Your task to perform on an android device: Open Chrome and go to the settings page Image 0: 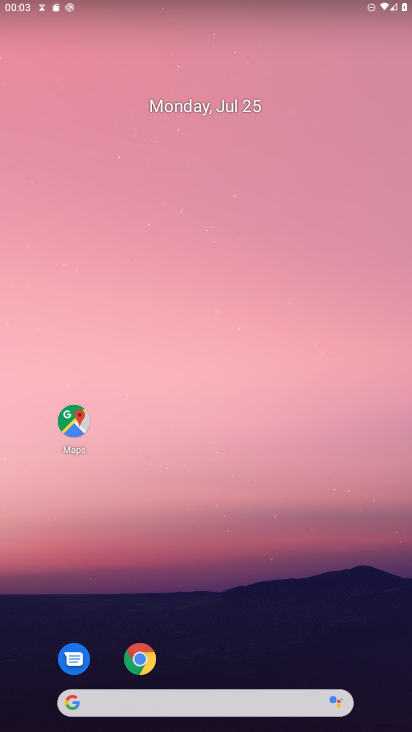
Step 0: drag from (156, 593) to (163, 22)
Your task to perform on an android device: Open Chrome and go to the settings page Image 1: 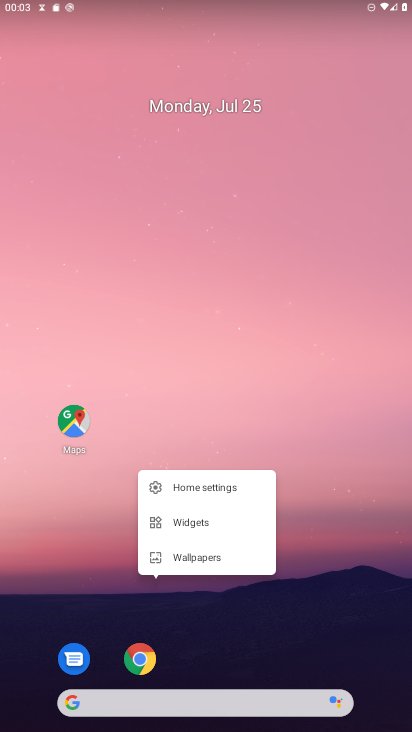
Step 1: click (303, 530)
Your task to perform on an android device: Open Chrome and go to the settings page Image 2: 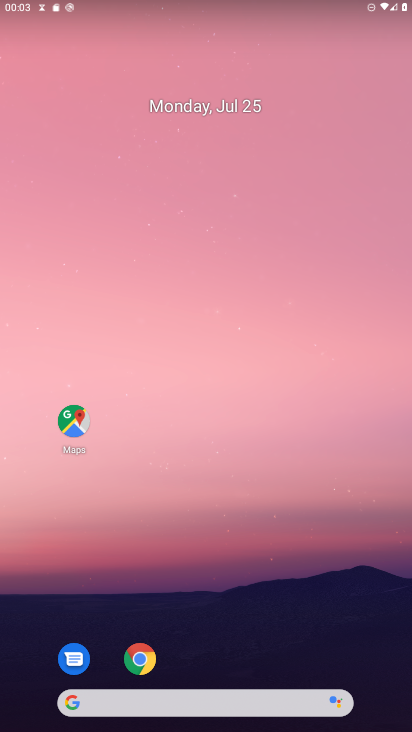
Step 2: drag from (282, 634) to (225, 181)
Your task to perform on an android device: Open Chrome and go to the settings page Image 3: 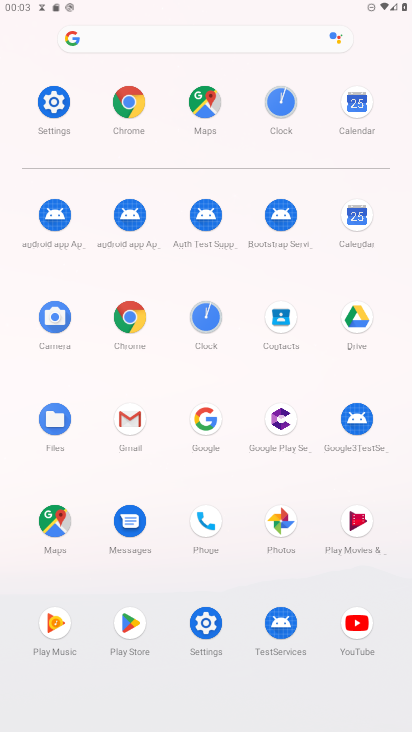
Step 3: click (129, 114)
Your task to perform on an android device: Open Chrome and go to the settings page Image 4: 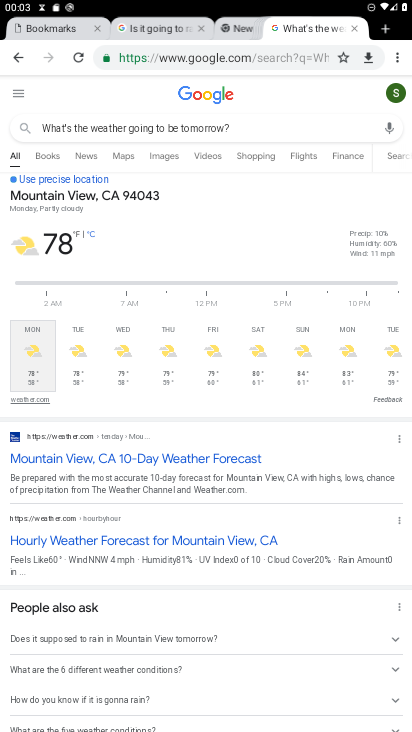
Step 4: click (395, 57)
Your task to perform on an android device: Open Chrome and go to the settings page Image 5: 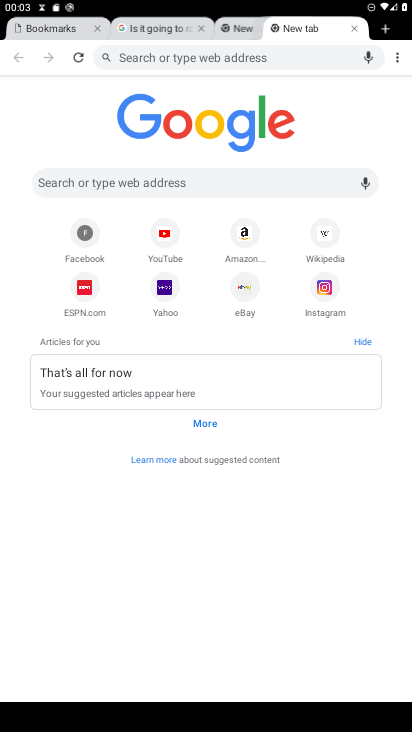
Step 5: click (393, 54)
Your task to perform on an android device: Open Chrome and go to the settings page Image 6: 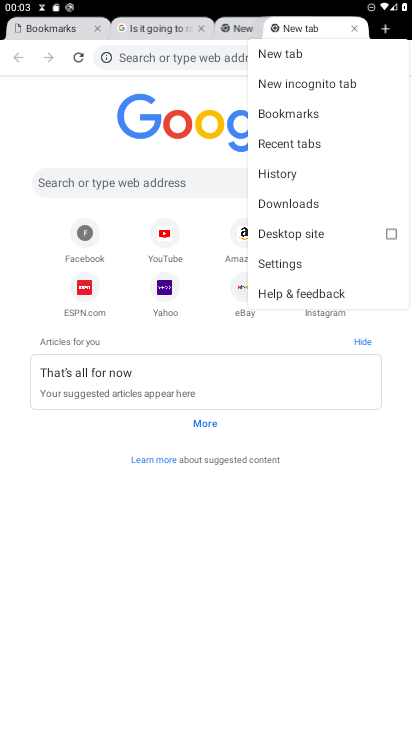
Step 6: click (274, 260)
Your task to perform on an android device: Open Chrome and go to the settings page Image 7: 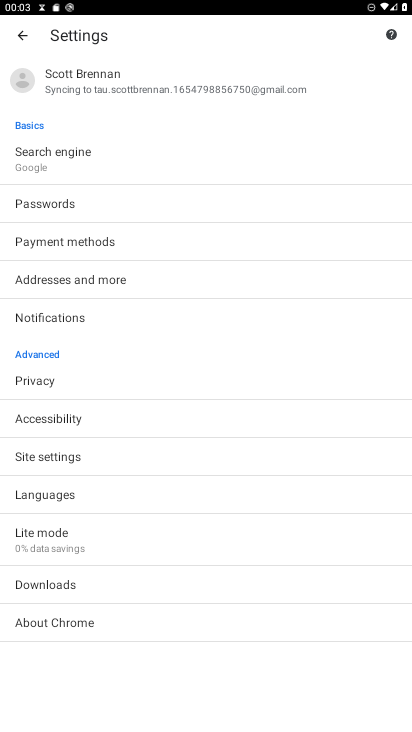
Step 7: click (273, 260)
Your task to perform on an android device: Open Chrome and go to the settings page Image 8: 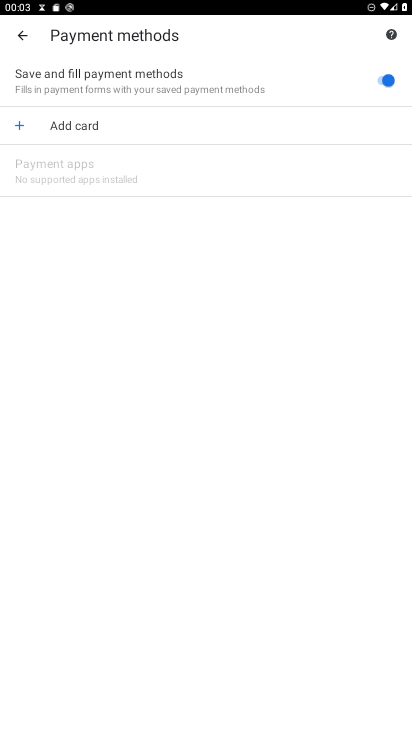
Step 8: click (21, 40)
Your task to perform on an android device: Open Chrome and go to the settings page Image 9: 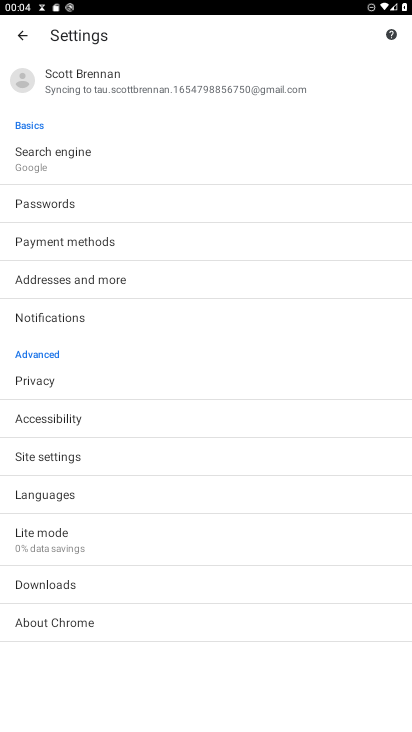
Step 9: task complete